Your task to perform on an android device: Open wifi settings Image 0: 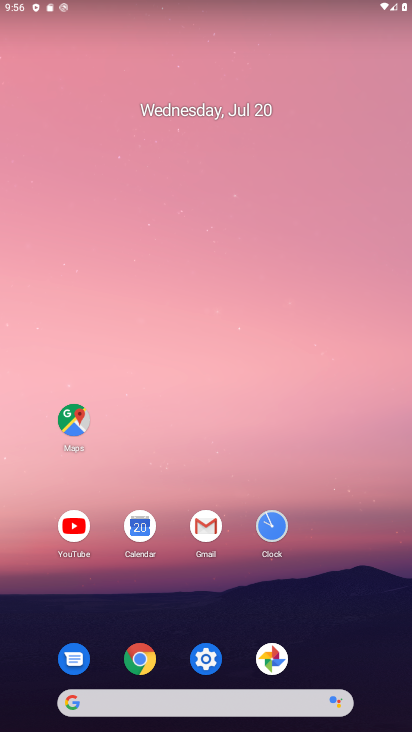
Step 0: click (203, 671)
Your task to perform on an android device: Open wifi settings Image 1: 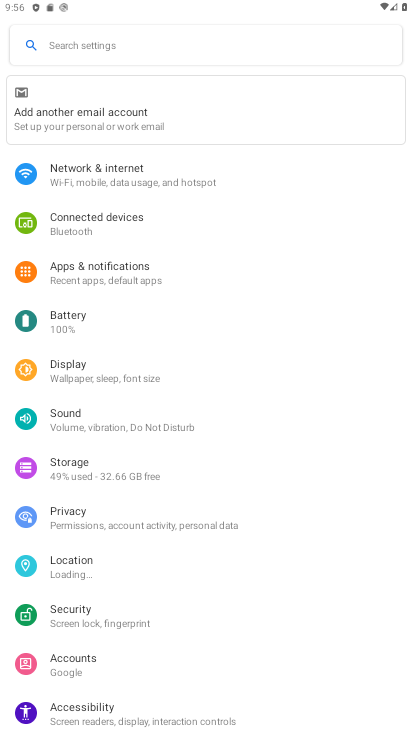
Step 1: click (100, 168)
Your task to perform on an android device: Open wifi settings Image 2: 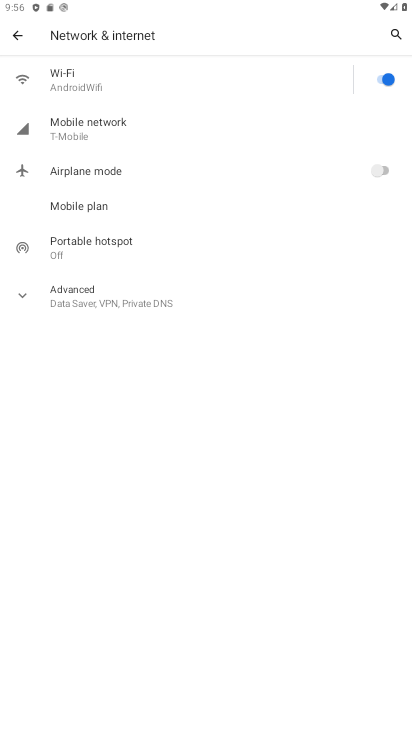
Step 2: click (58, 78)
Your task to perform on an android device: Open wifi settings Image 3: 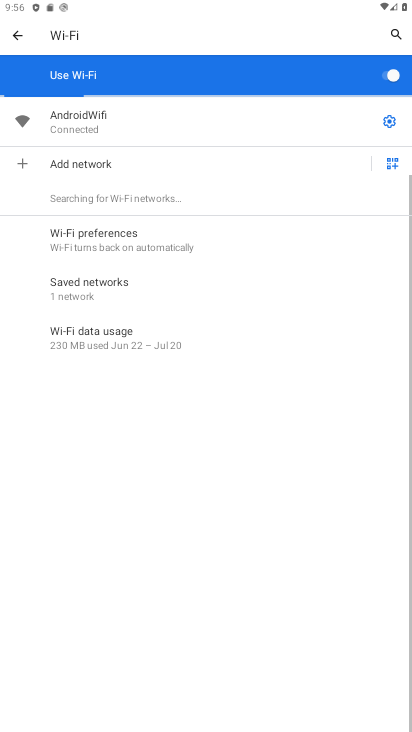
Step 3: task complete